Your task to perform on an android device: open a bookmark in the chrome app Image 0: 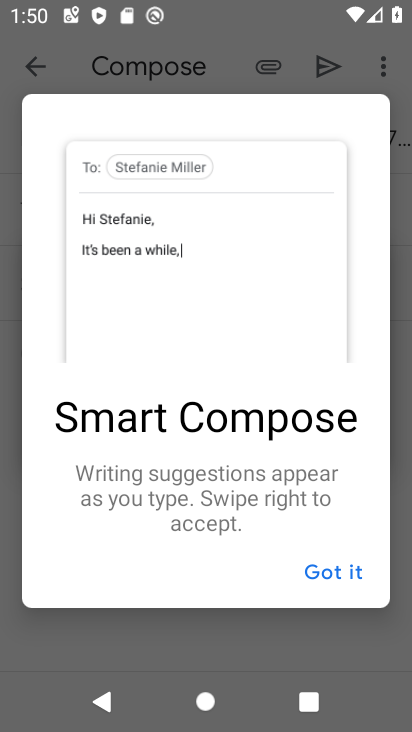
Step 0: press home button
Your task to perform on an android device: open a bookmark in the chrome app Image 1: 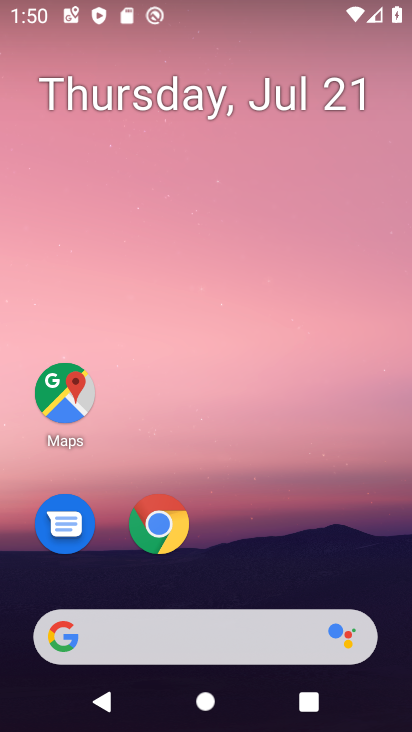
Step 1: click (171, 536)
Your task to perform on an android device: open a bookmark in the chrome app Image 2: 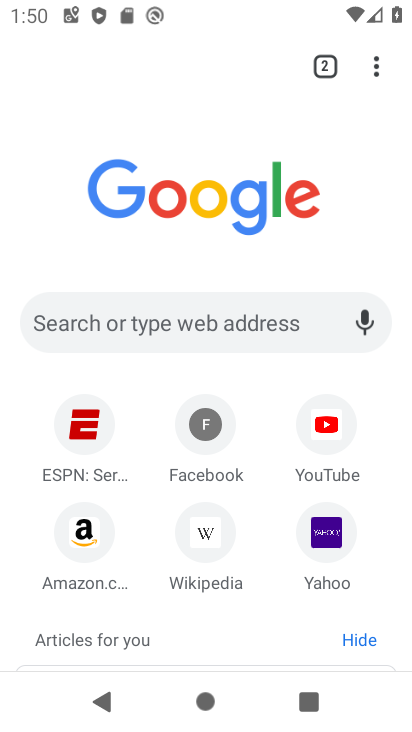
Step 2: click (376, 71)
Your task to perform on an android device: open a bookmark in the chrome app Image 3: 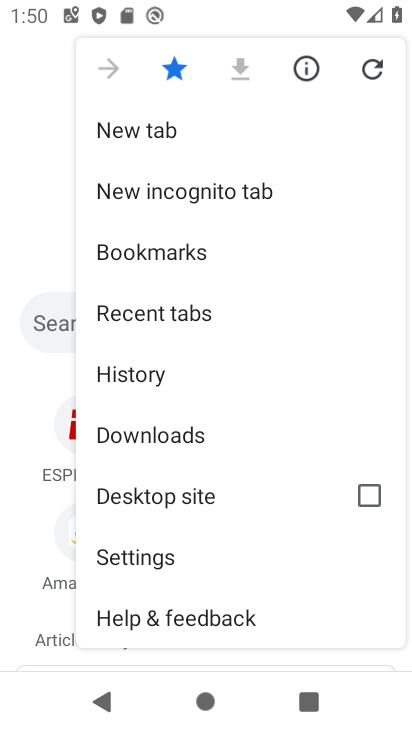
Step 3: click (182, 243)
Your task to perform on an android device: open a bookmark in the chrome app Image 4: 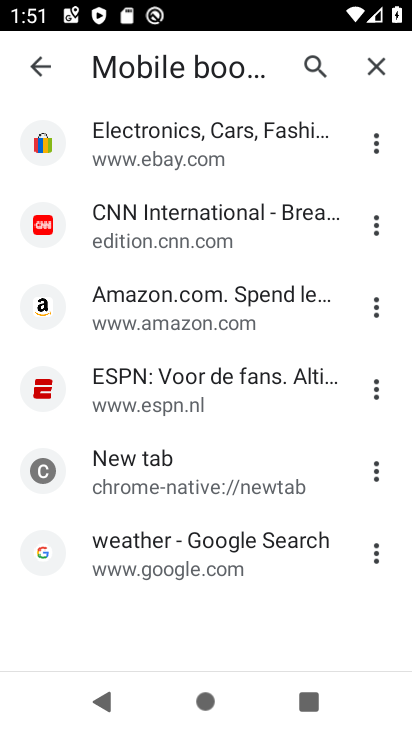
Step 4: click (208, 145)
Your task to perform on an android device: open a bookmark in the chrome app Image 5: 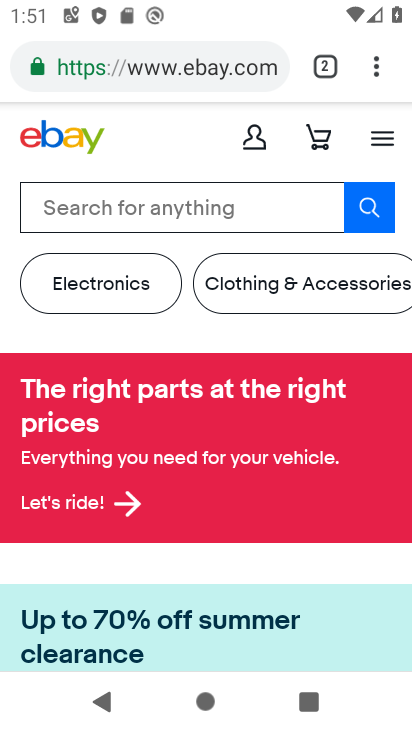
Step 5: task complete